Your task to perform on an android device: Open Google Maps and go to "Timeline" Image 0: 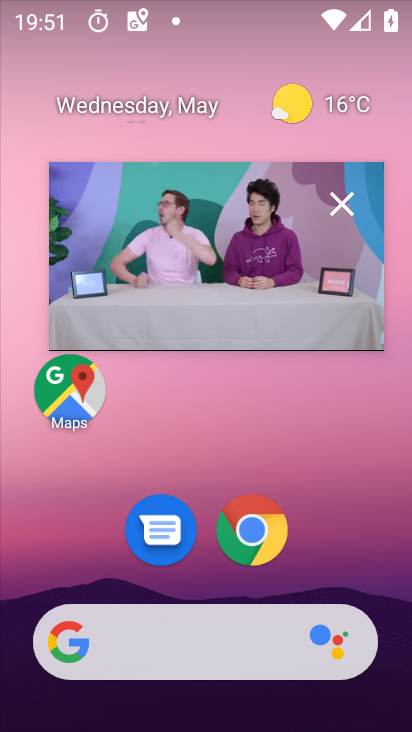
Step 0: click (337, 199)
Your task to perform on an android device: Open Google Maps and go to "Timeline" Image 1: 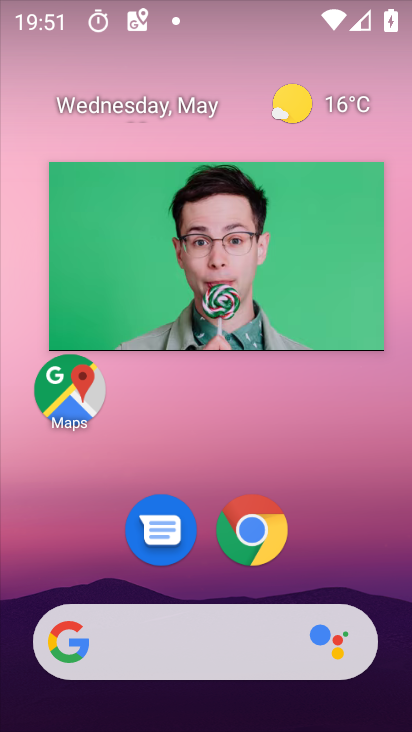
Step 1: click (274, 256)
Your task to perform on an android device: Open Google Maps and go to "Timeline" Image 2: 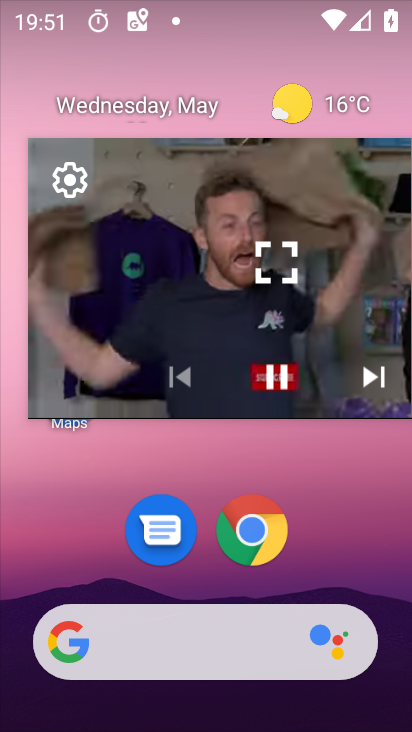
Step 2: click (284, 261)
Your task to perform on an android device: Open Google Maps and go to "Timeline" Image 3: 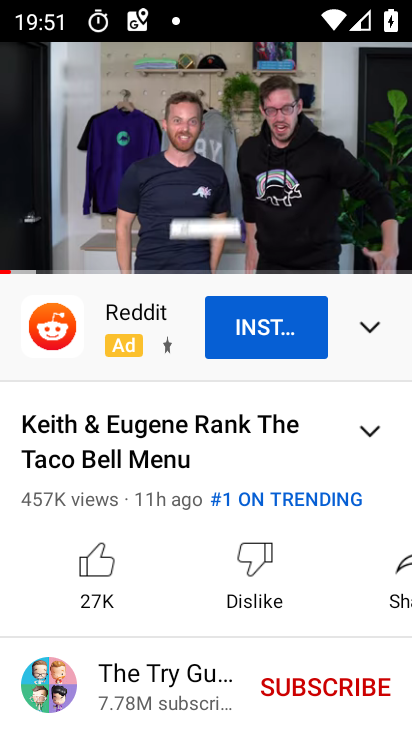
Step 3: click (203, 148)
Your task to perform on an android device: Open Google Maps and go to "Timeline" Image 4: 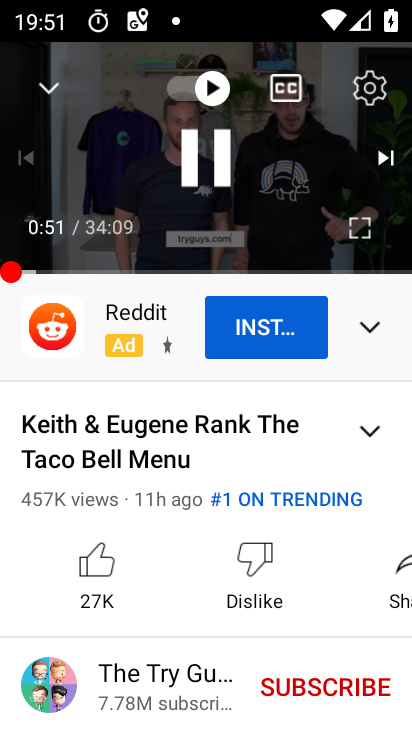
Step 4: click (213, 161)
Your task to perform on an android device: Open Google Maps and go to "Timeline" Image 5: 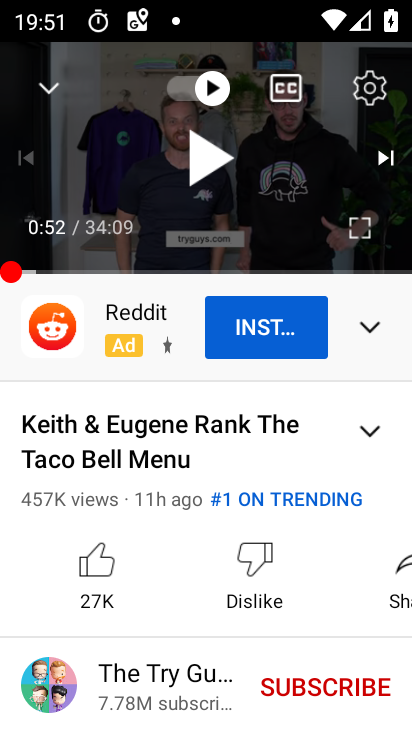
Step 5: press home button
Your task to perform on an android device: Open Google Maps and go to "Timeline" Image 6: 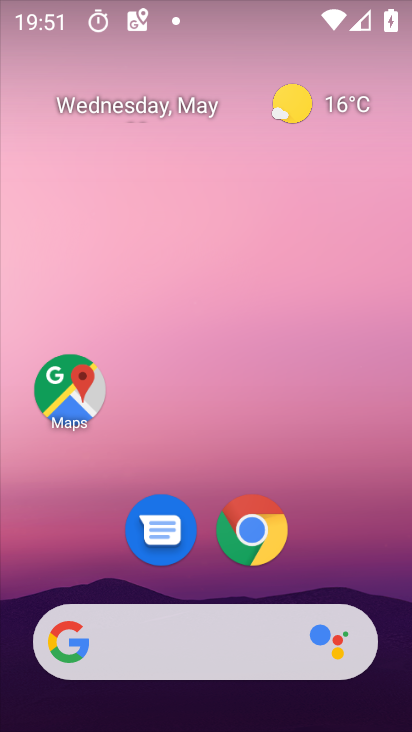
Step 6: click (60, 388)
Your task to perform on an android device: Open Google Maps and go to "Timeline" Image 7: 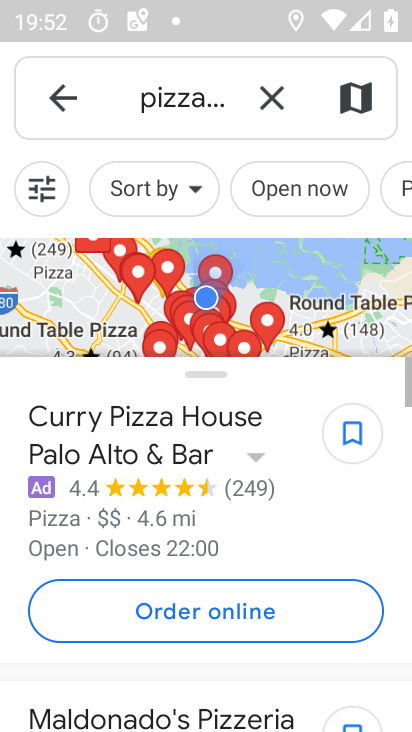
Step 7: click (73, 94)
Your task to perform on an android device: Open Google Maps and go to "Timeline" Image 8: 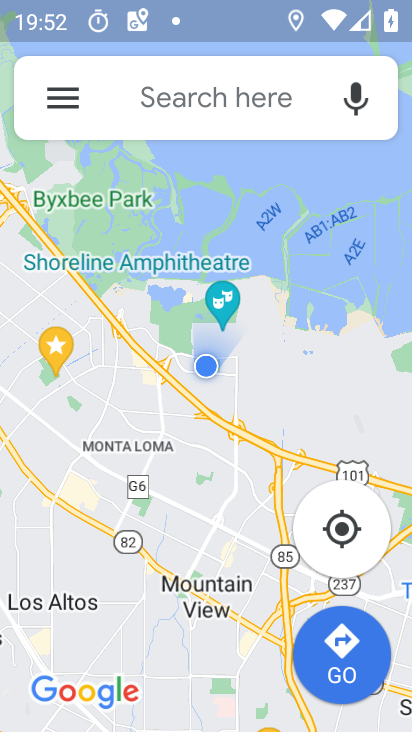
Step 8: click (51, 98)
Your task to perform on an android device: Open Google Maps and go to "Timeline" Image 9: 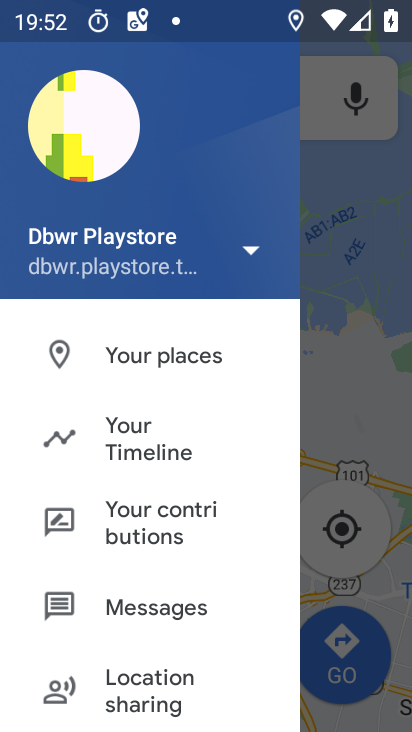
Step 9: click (119, 422)
Your task to perform on an android device: Open Google Maps and go to "Timeline" Image 10: 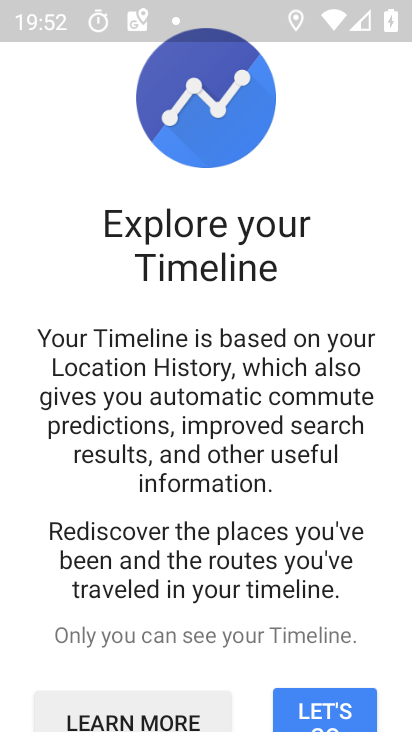
Step 10: click (328, 712)
Your task to perform on an android device: Open Google Maps and go to "Timeline" Image 11: 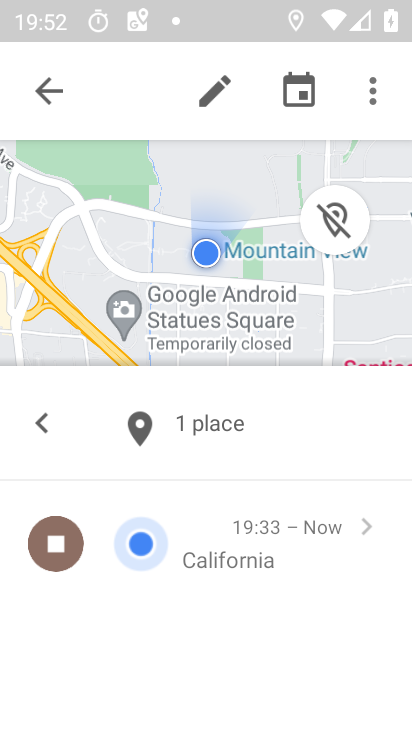
Step 11: task complete